Your task to perform on an android device: toggle airplane mode Image 0: 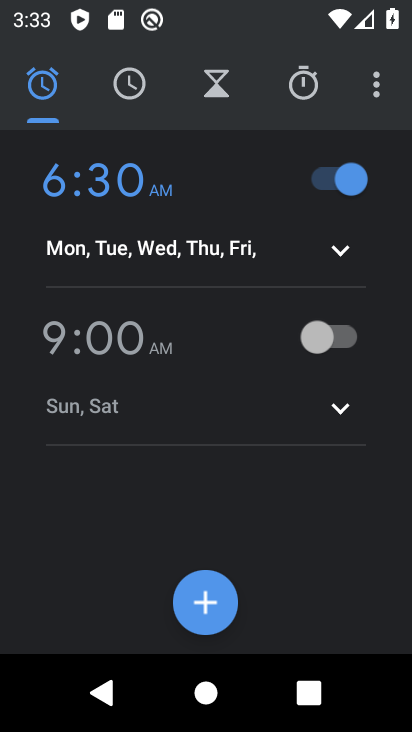
Step 0: press home button
Your task to perform on an android device: toggle airplane mode Image 1: 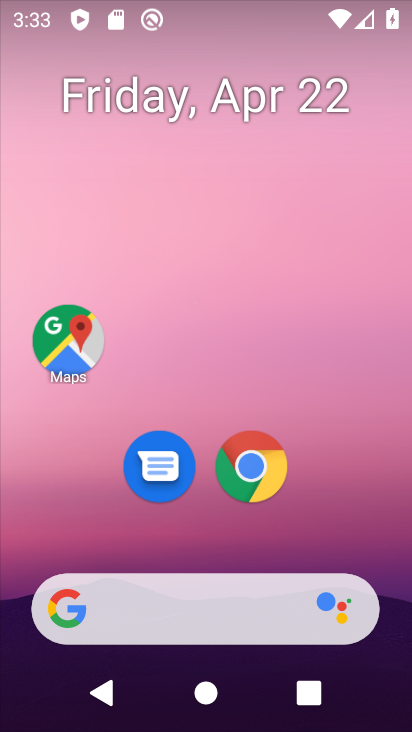
Step 1: drag from (400, 620) to (350, 131)
Your task to perform on an android device: toggle airplane mode Image 2: 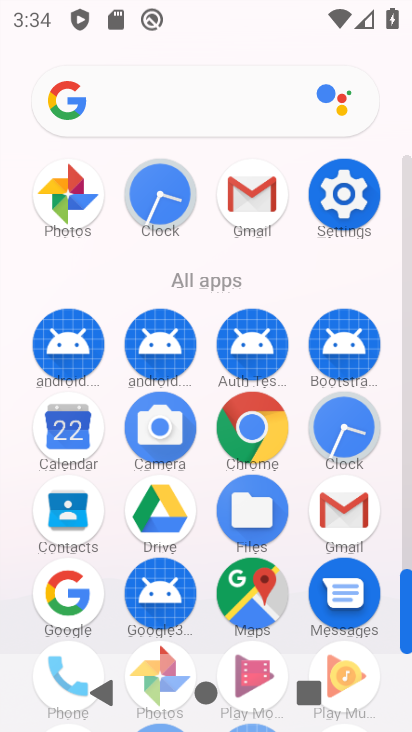
Step 2: drag from (405, 560) to (408, 505)
Your task to perform on an android device: toggle airplane mode Image 3: 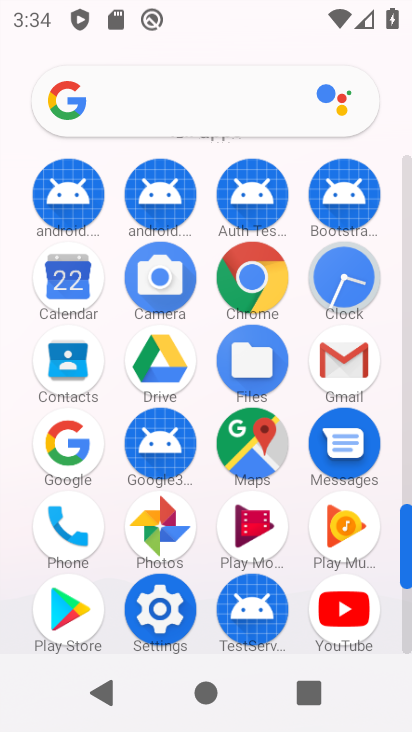
Step 3: click (160, 609)
Your task to perform on an android device: toggle airplane mode Image 4: 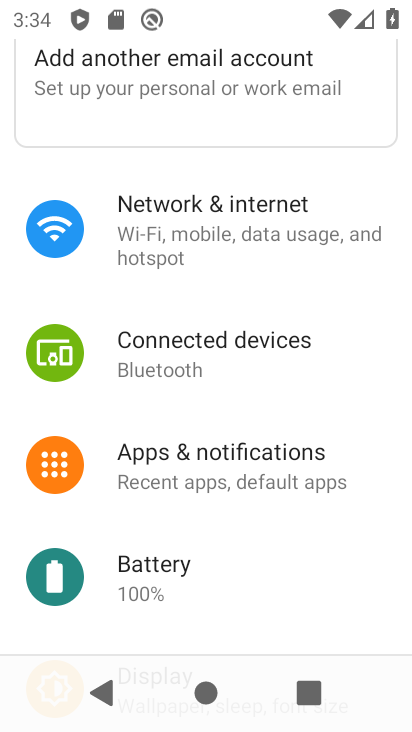
Step 4: click (180, 236)
Your task to perform on an android device: toggle airplane mode Image 5: 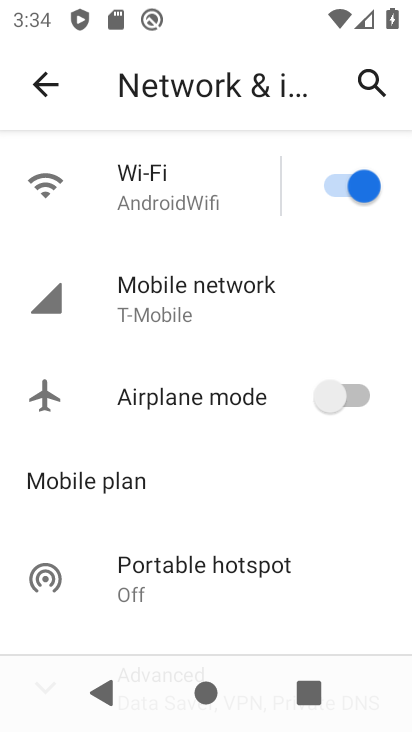
Step 5: click (343, 397)
Your task to perform on an android device: toggle airplane mode Image 6: 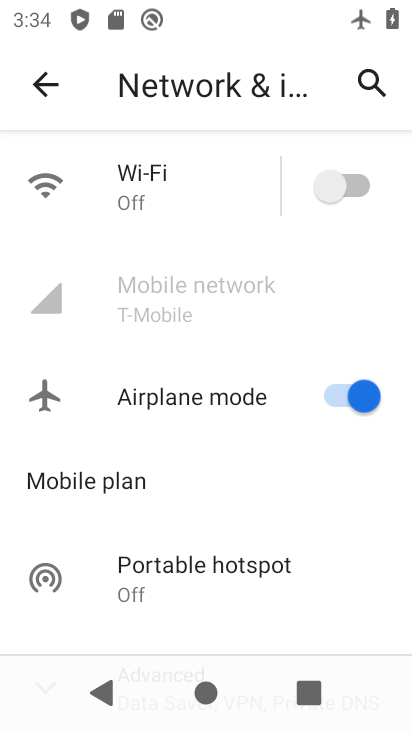
Step 6: task complete